Your task to perform on an android device: move an email to a new category in the gmail app Image 0: 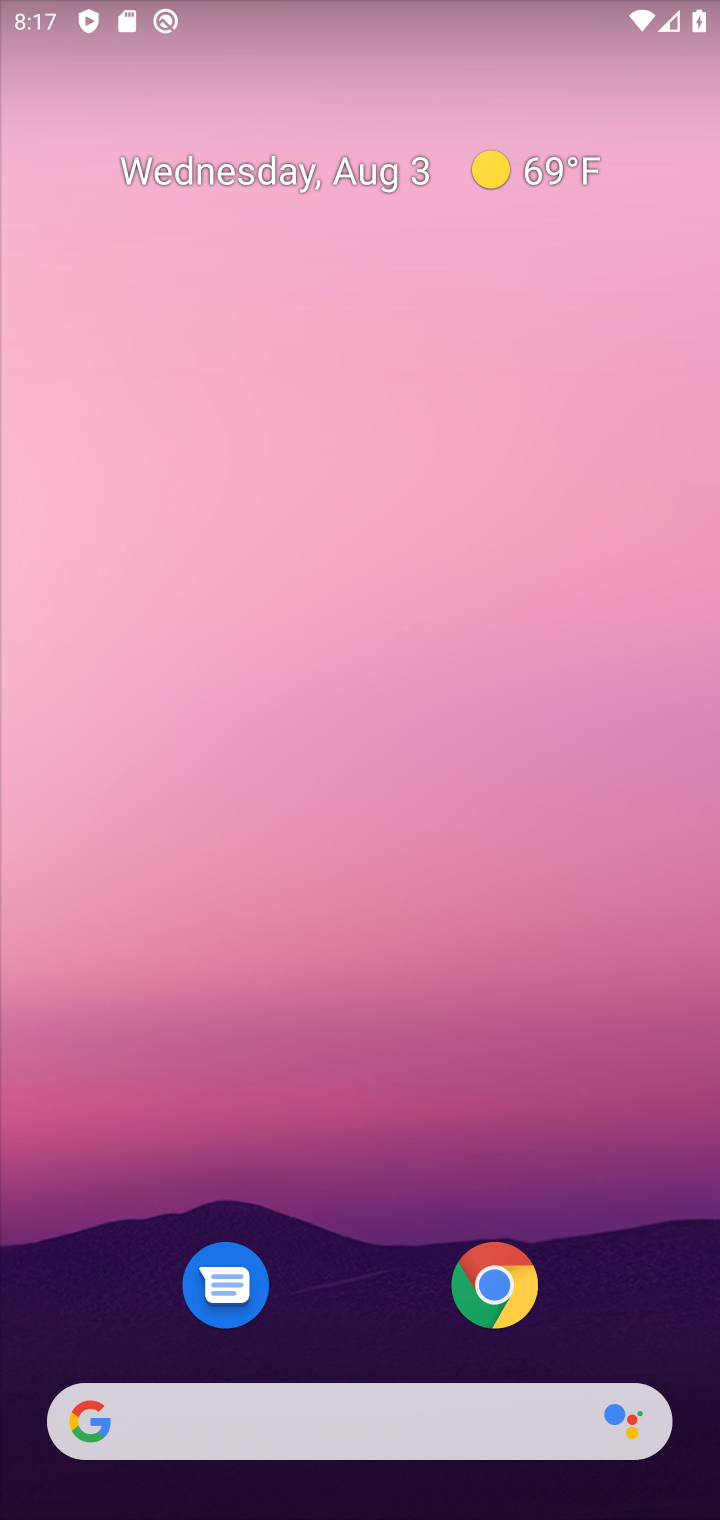
Step 0: drag from (642, 1302) to (481, 564)
Your task to perform on an android device: move an email to a new category in the gmail app Image 1: 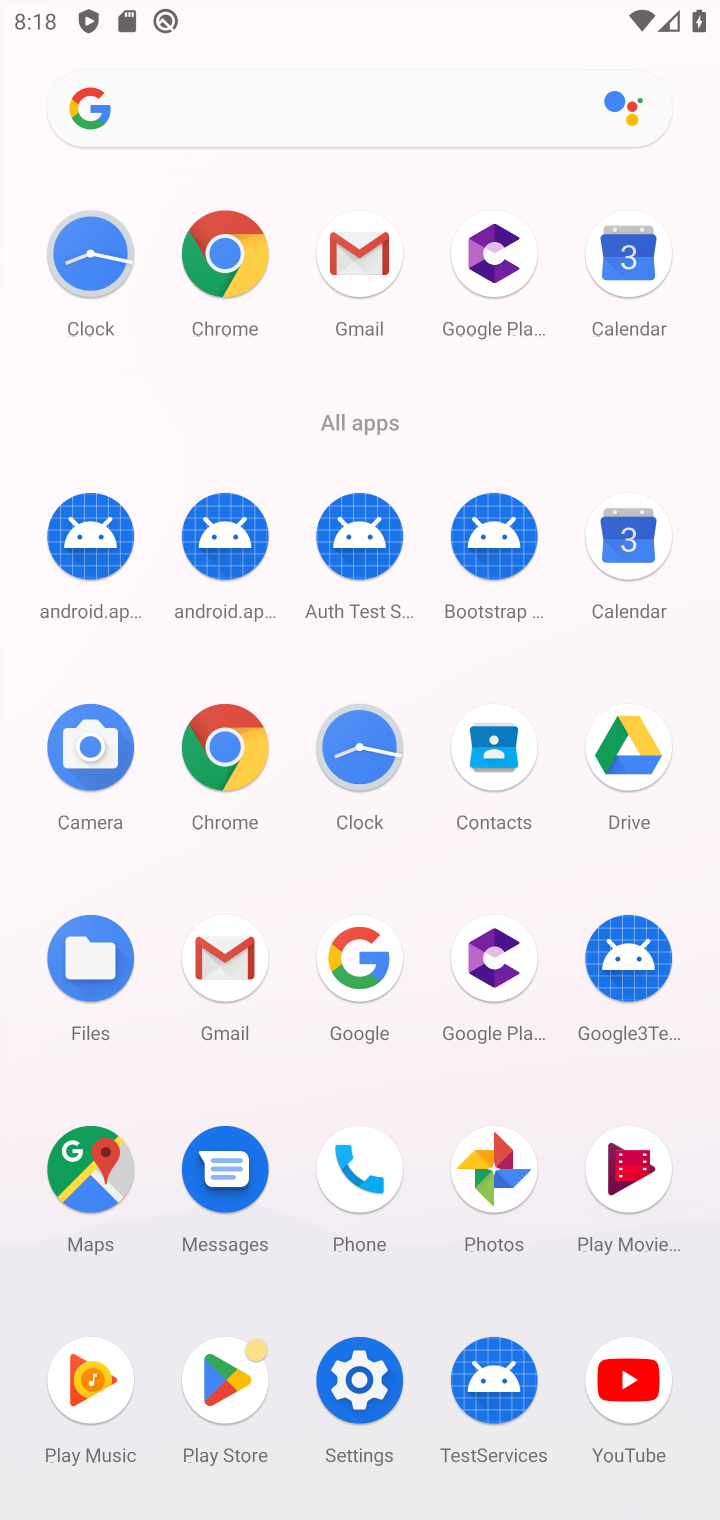
Step 1: click (223, 971)
Your task to perform on an android device: move an email to a new category in the gmail app Image 2: 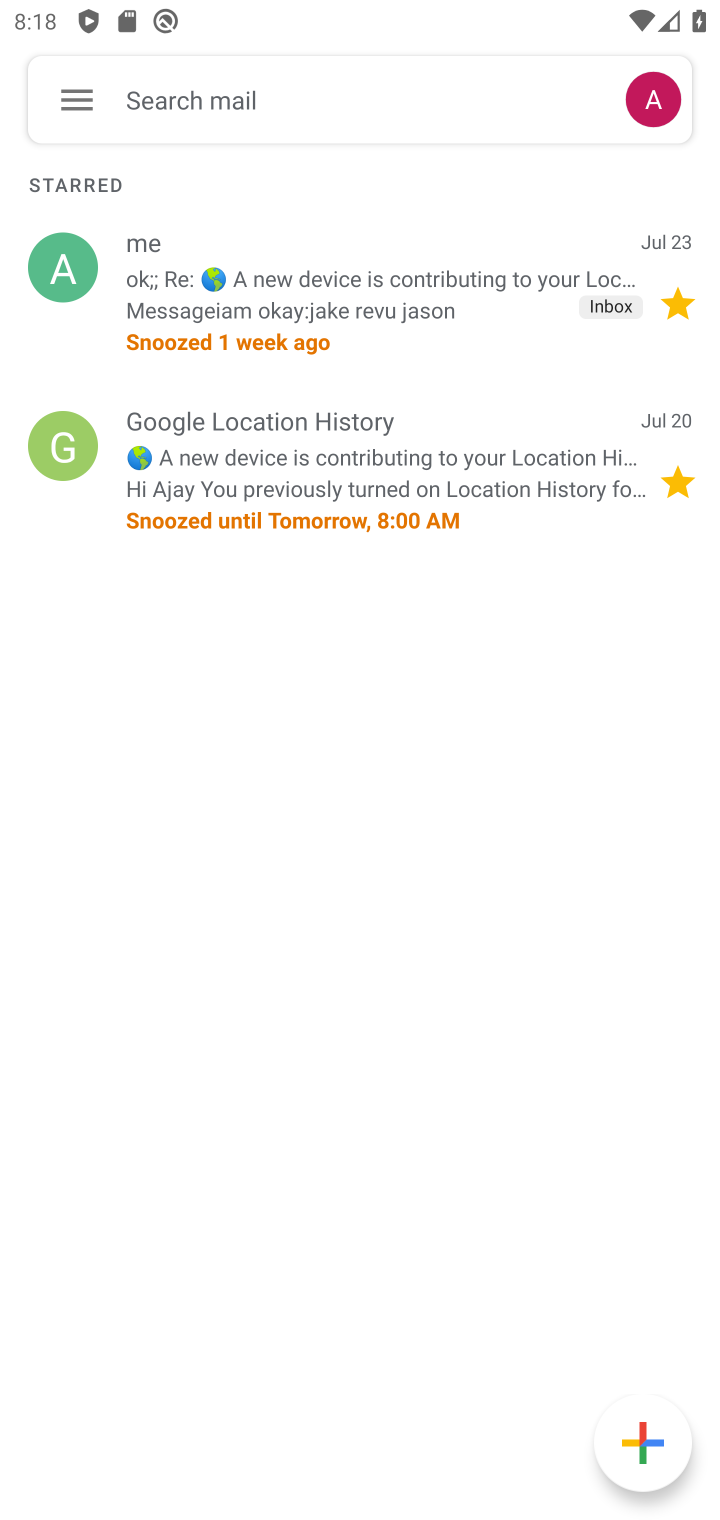
Step 2: click (422, 448)
Your task to perform on an android device: move an email to a new category in the gmail app Image 3: 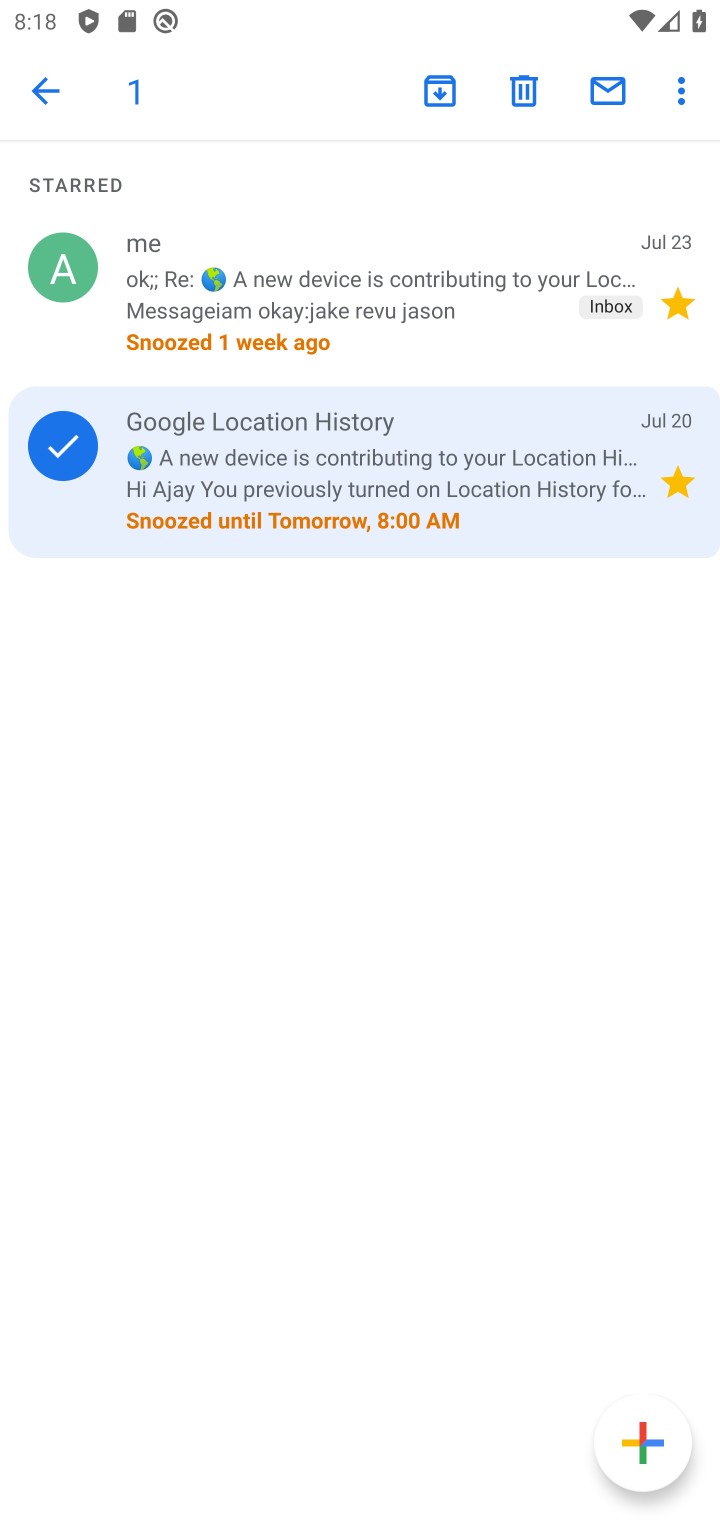
Step 3: click (689, 91)
Your task to perform on an android device: move an email to a new category in the gmail app Image 4: 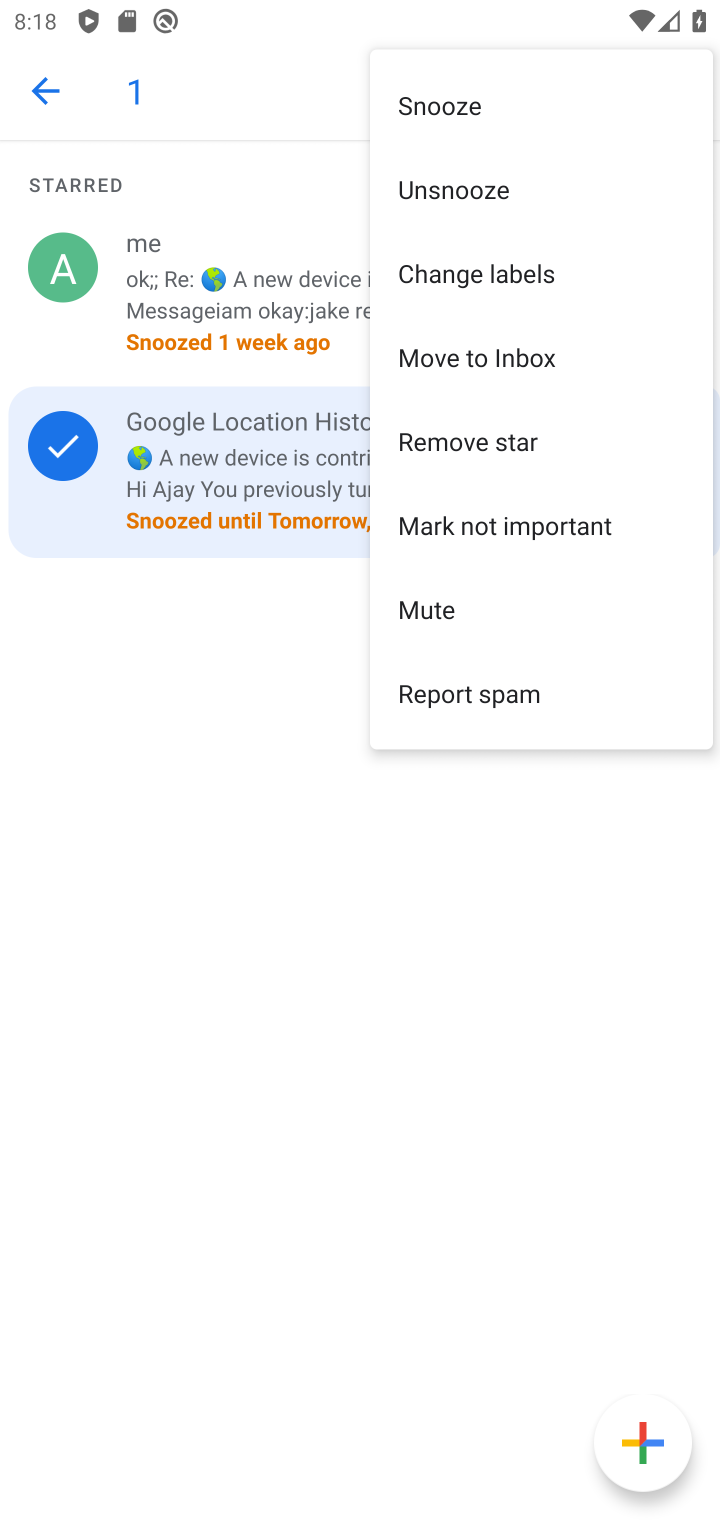
Step 4: click (481, 264)
Your task to perform on an android device: move an email to a new category in the gmail app Image 5: 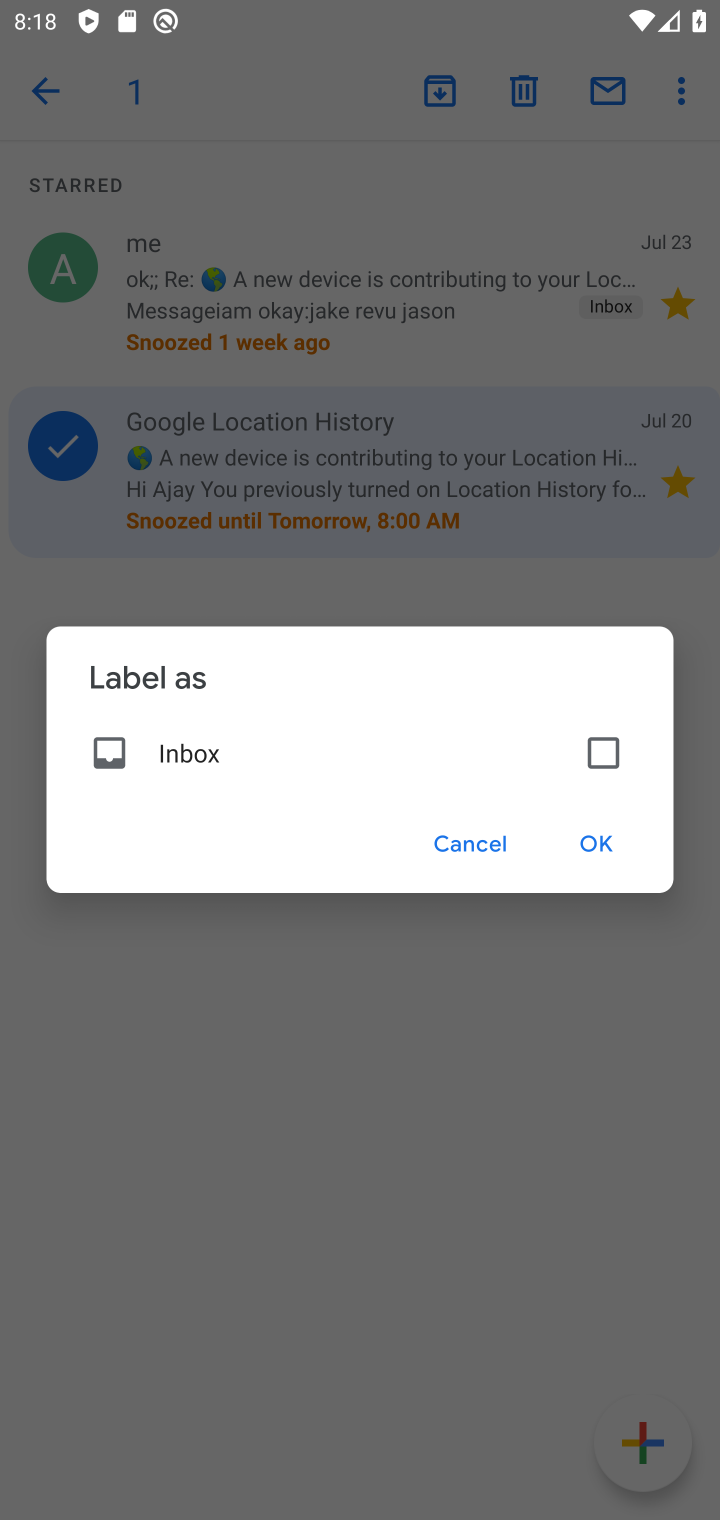
Step 5: click (605, 743)
Your task to perform on an android device: move an email to a new category in the gmail app Image 6: 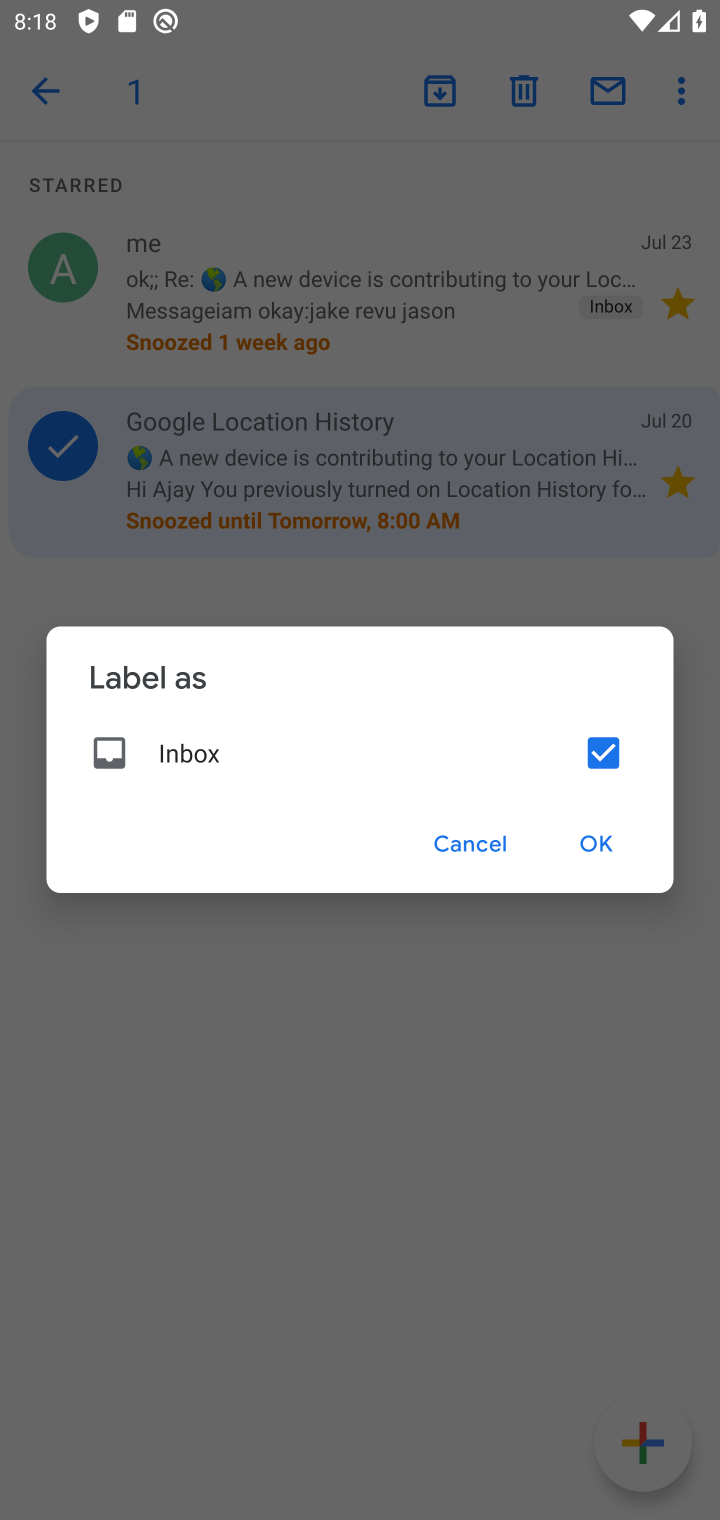
Step 6: click (599, 845)
Your task to perform on an android device: move an email to a new category in the gmail app Image 7: 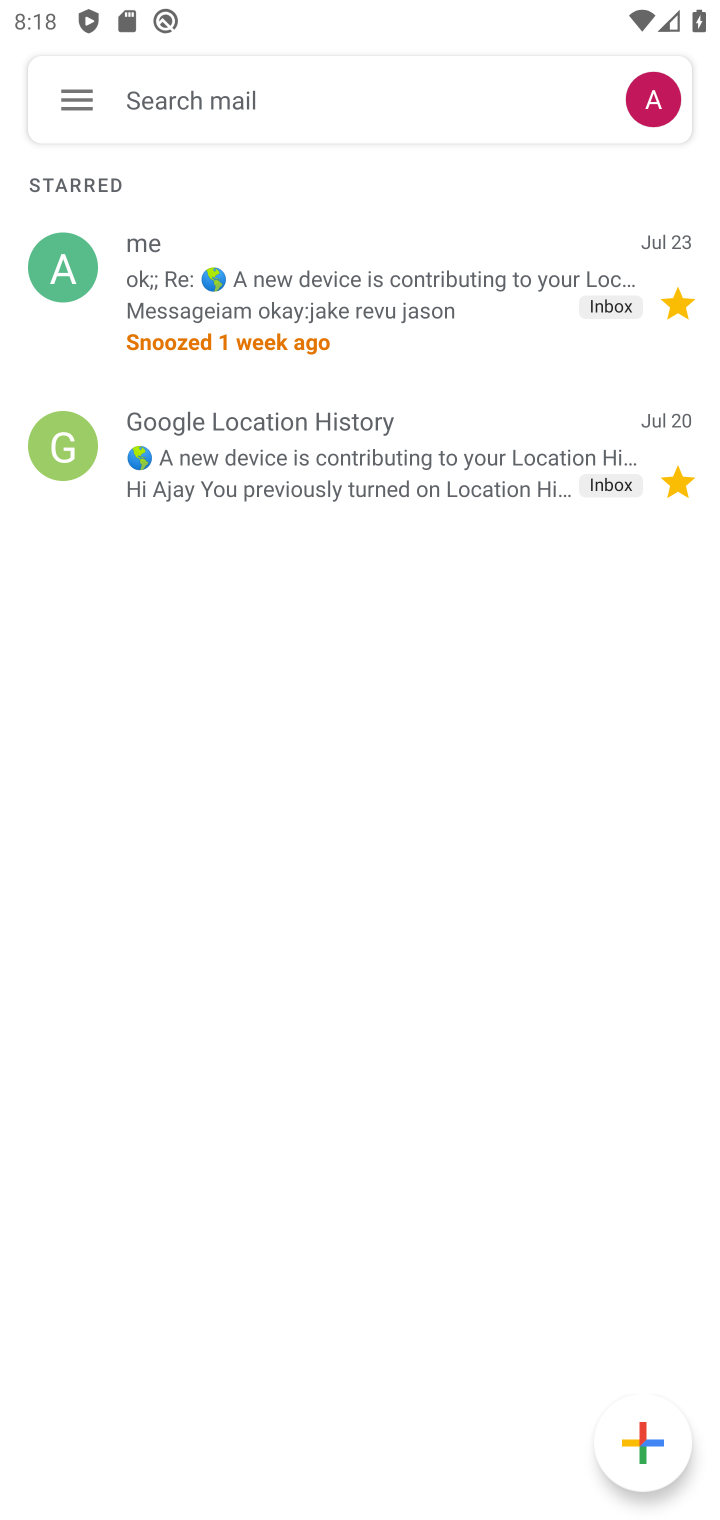
Step 7: task complete